Your task to perform on an android device: Go to internet settings Image 0: 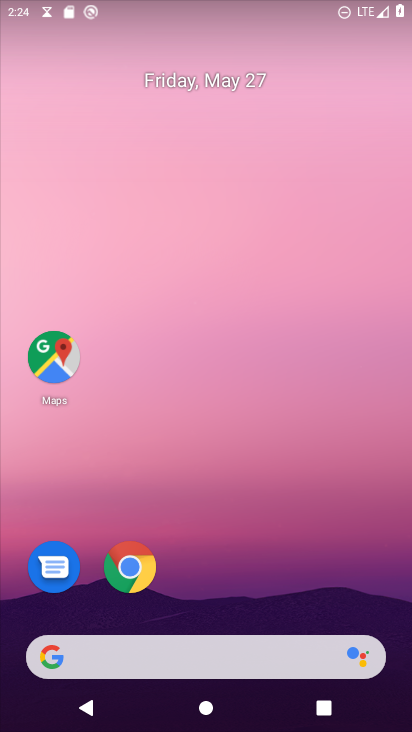
Step 0: drag from (235, 610) to (237, 116)
Your task to perform on an android device: Go to internet settings Image 1: 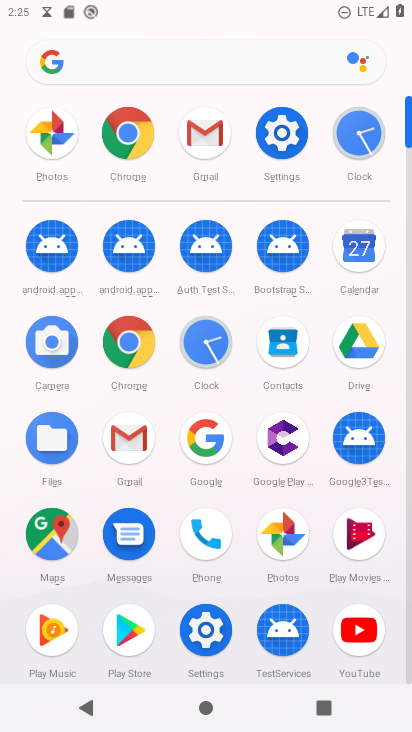
Step 1: click (287, 139)
Your task to perform on an android device: Go to internet settings Image 2: 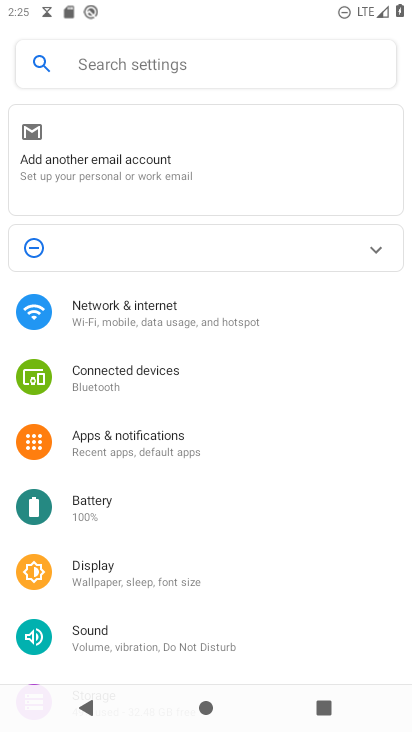
Step 2: click (194, 323)
Your task to perform on an android device: Go to internet settings Image 3: 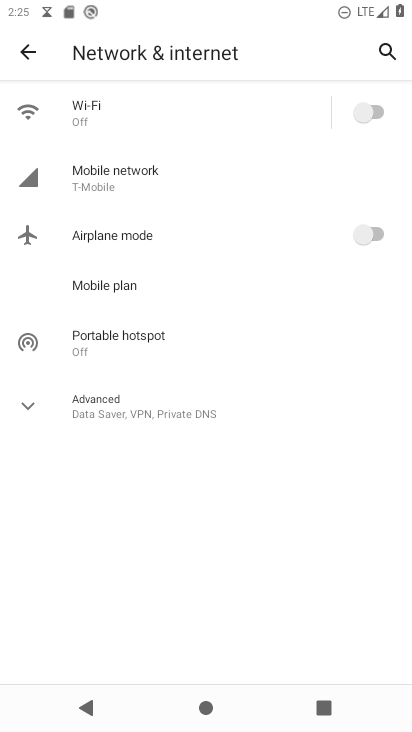
Step 3: task complete